Your task to perform on an android device: change the clock display to digital Image 0: 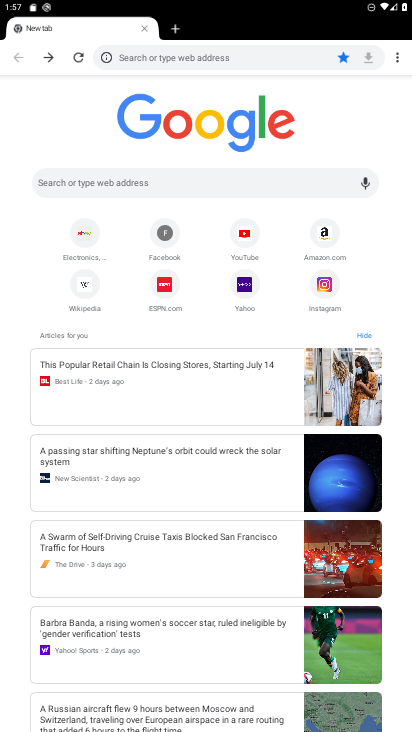
Step 0: press home button
Your task to perform on an android device: change the clock display to digital Image 1: 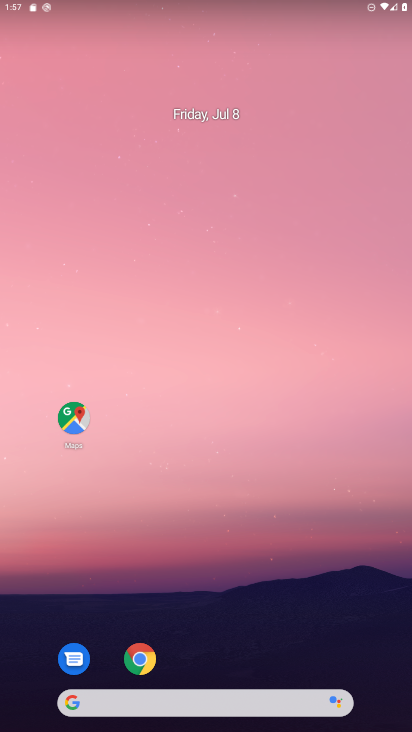
Step 1: drag from (221, 646) to (209, 182)
Your task to perform on an android device: change the clock display to digital Image 2: 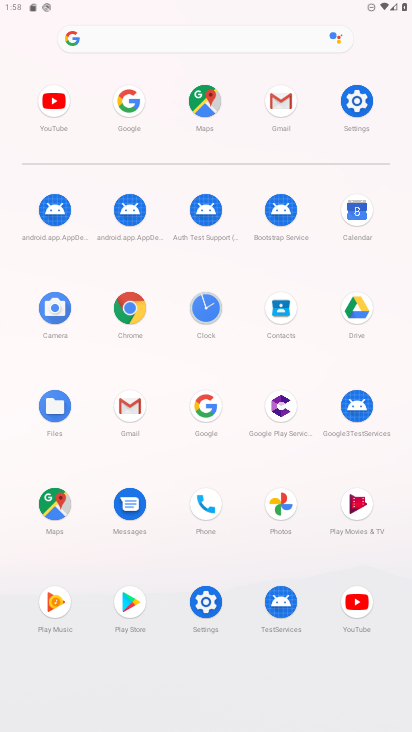
Step 2: click (205, 308)
Your task to perform on an android device: change the clock display to digital Image 3: 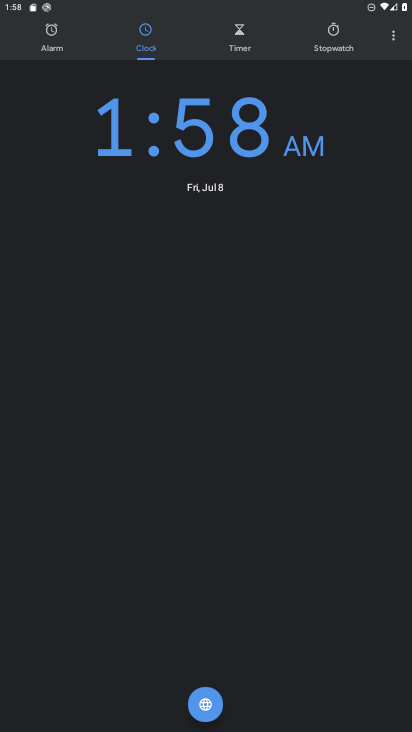
Step 3: click (394, 39)
Your task to perform on an android device: change the clock display to digital Image 4: 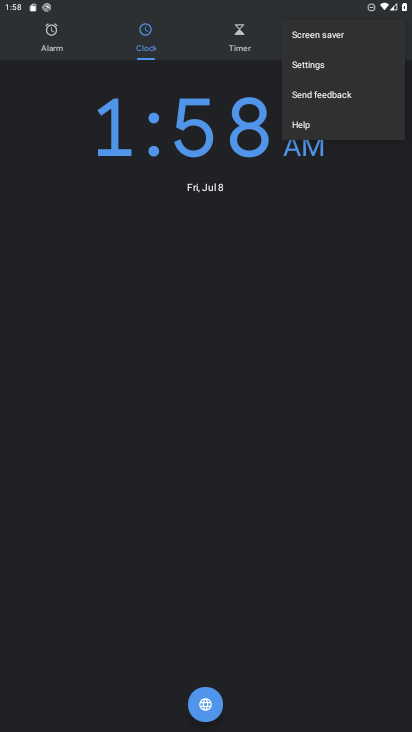
Step 4: click (316, 63)
Your task to perform on an android device: change the clock display to digital Image 5: 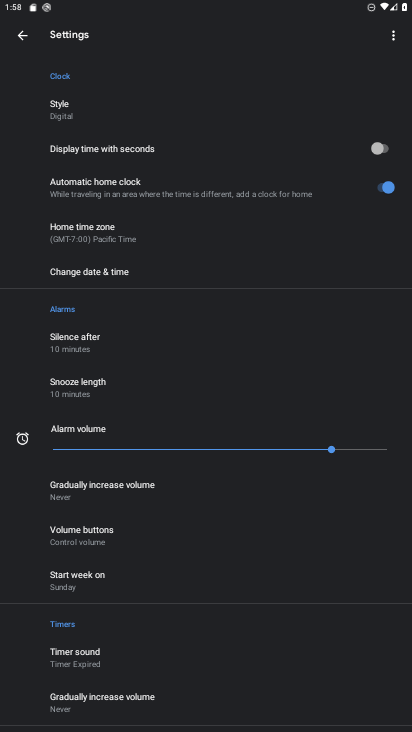
Step 5: click (67, 110)
Your task to perform on an android device: change the clock display to digital Image 6: 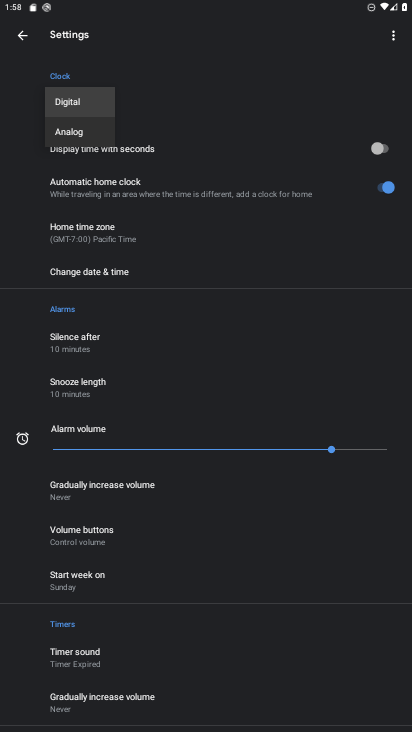
Step 6: click (67, 110)
Your task to perform on an android device: change the clock display to digital Image 7: 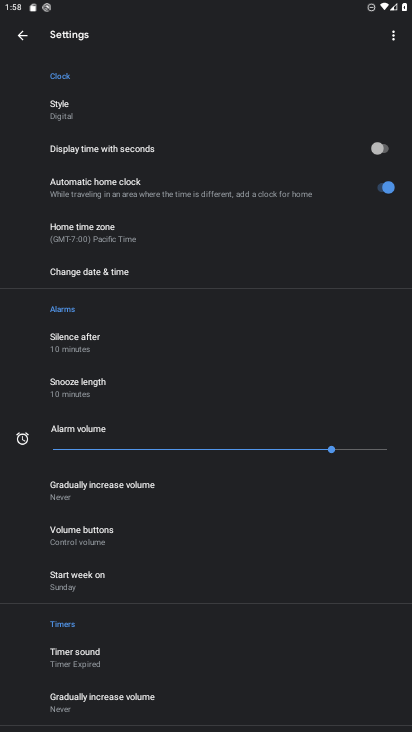
Step 7: task complete